Your task to perform on an android device: Go to battery settings Image 0: 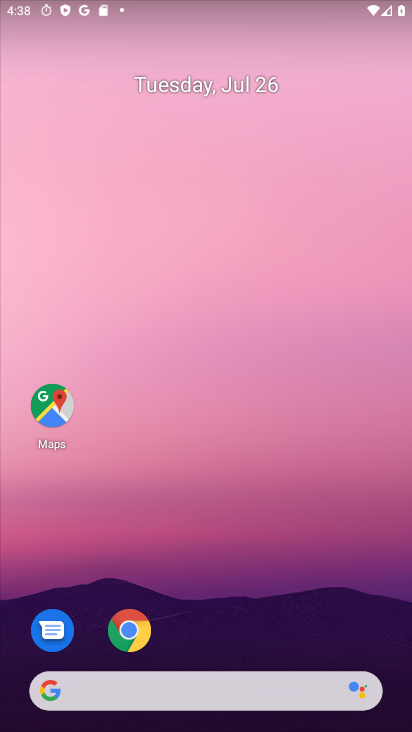
Step 0: drag from (295, 609) to (201, 100)
Your task to perform on an android device: Go to battery settings Image 1: 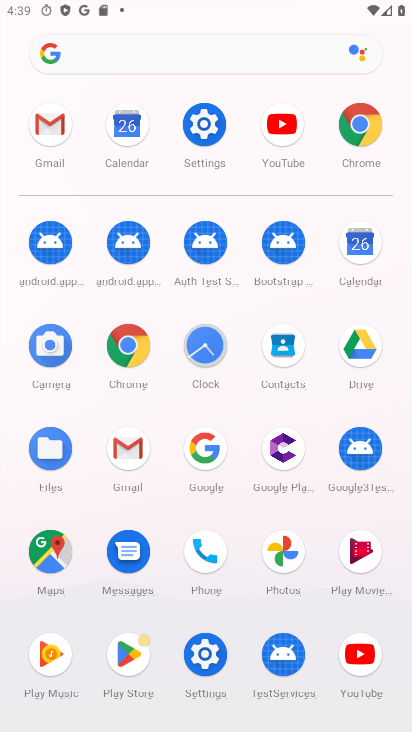
Step 1: click (206, 121)
Your task to perform on an android device: Go to battery settings Image 2: 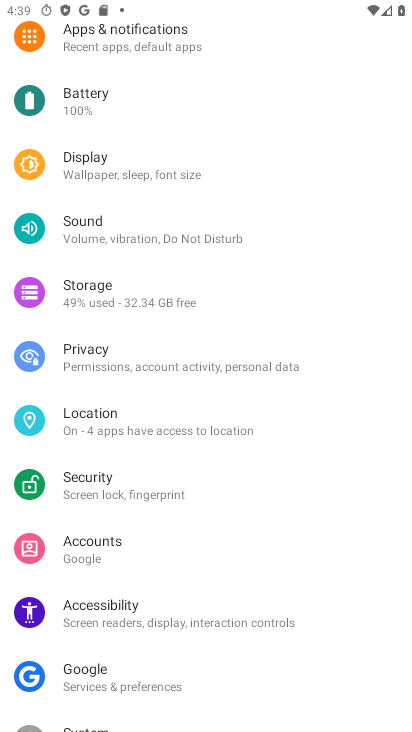
Step 2: click (94, 112)
Your task to perform on an android device: Go to battery settings Image 3: 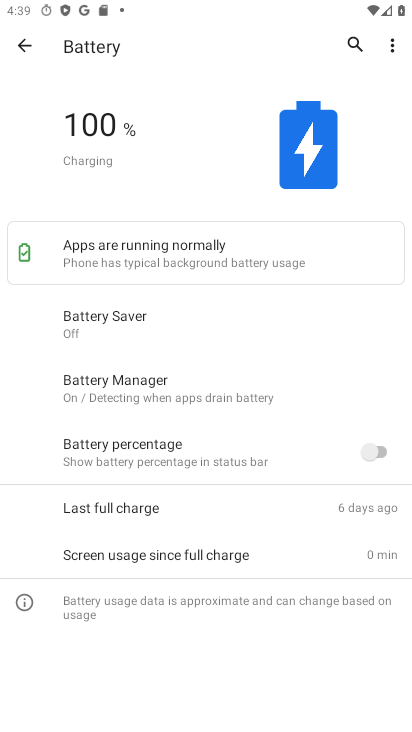
Step 3: task complete